Your task to perform on an android device: change alarm snooze length Image 0: 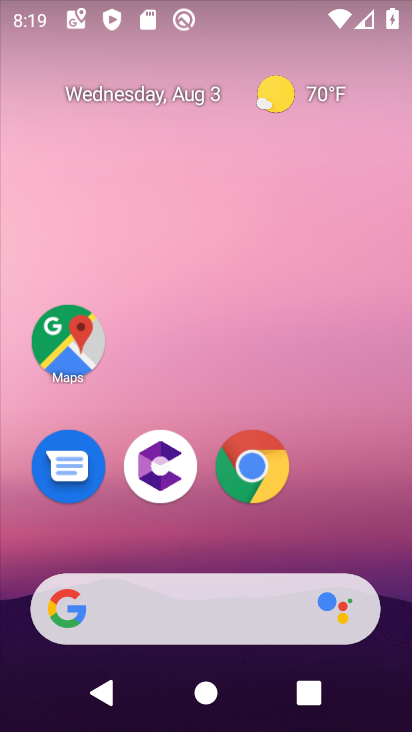
Step 0: drag from (370, 480) to (362, 76)
Your task to perform on an android device: change alarm snooze length Image 1: 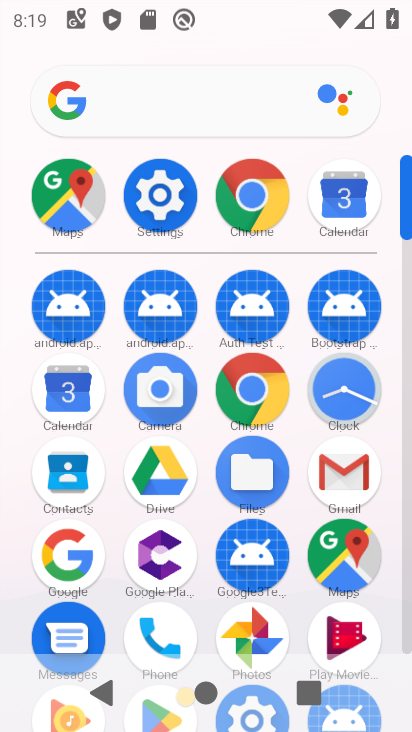
Step 1: click (335, 384)
Your task to perform on an android device: change alarm snooze length Image 2: 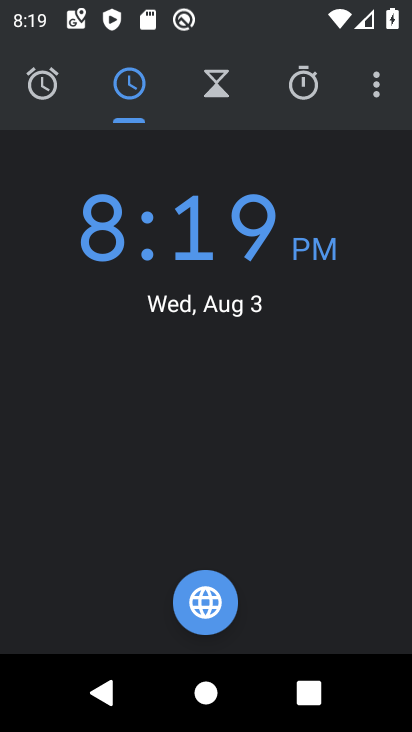
Step 2: click (372, 84)
Your task to perform on an android device: change alarm snooze length Image 3: 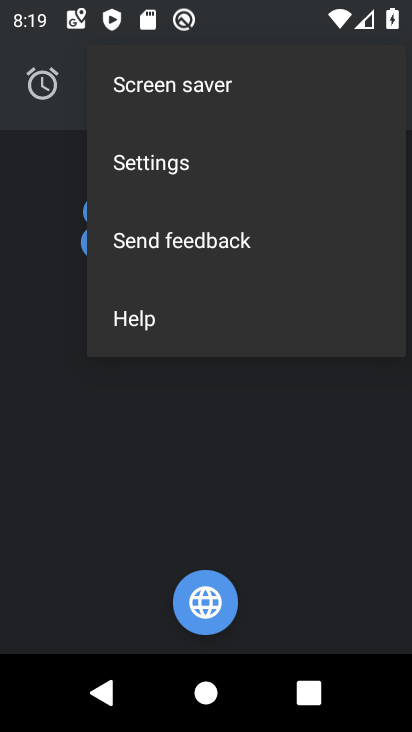
Step 3: click (155, 175)
Your task to perform on an android device: change alarm snooze length Image 4: 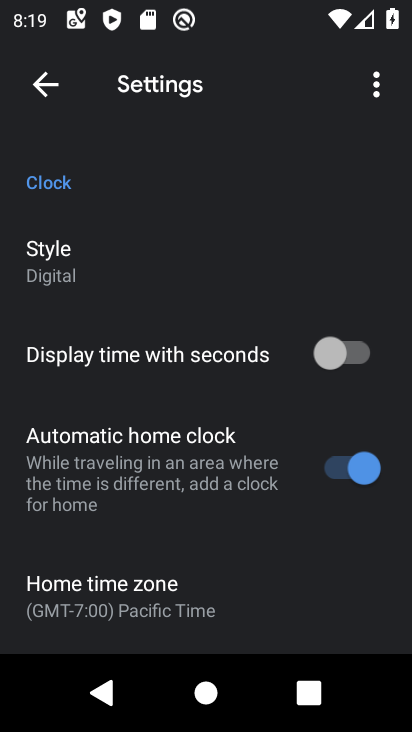
Step 4: drag from (227, 450) to (202, 169)
Your task to perform on an android device: change alarm snooze length Image 5: 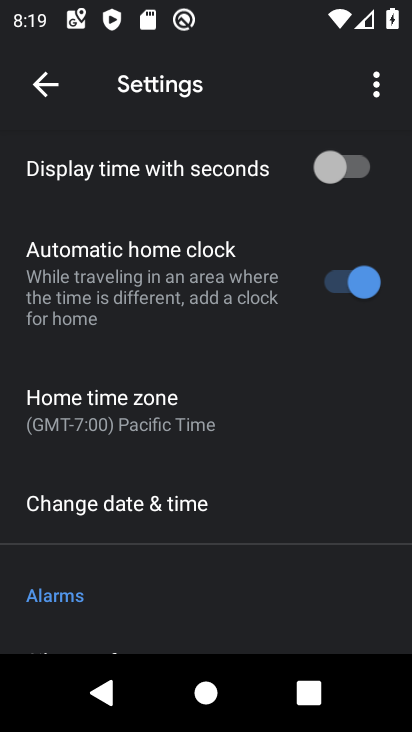
Step 5: drag from (239, 487) to (219, 346)
Your task to perform on an android device: change alarm snooze length Image 6: 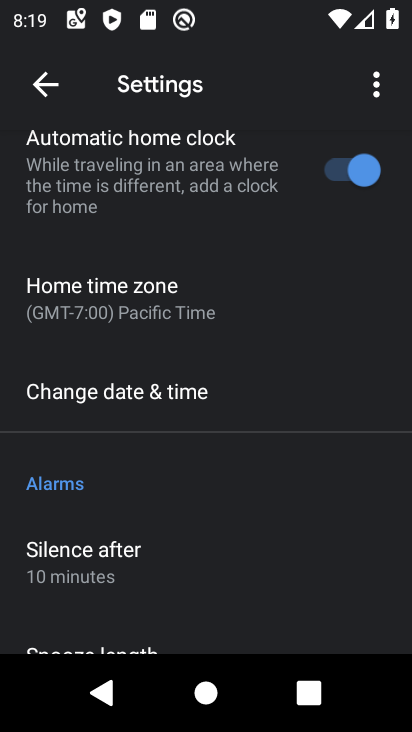
Step 6: drag from (231, 571) to (246, 398)
Your task to perform on an android device: change alarm snooze length Image 7: 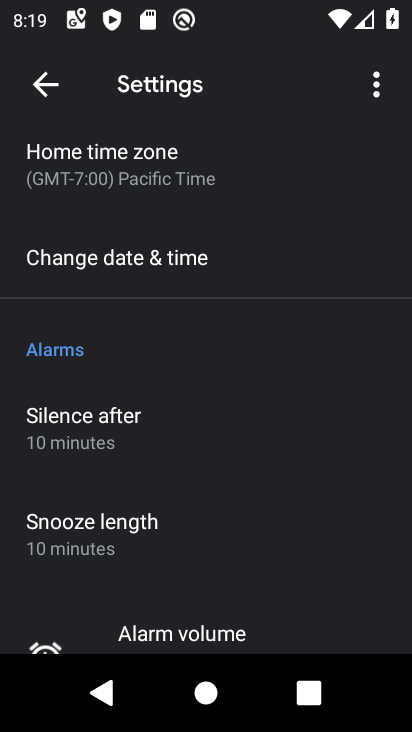
Step 7: click (88, 523)
Your task to perform on an android device: change alarm snooze length Image 8: 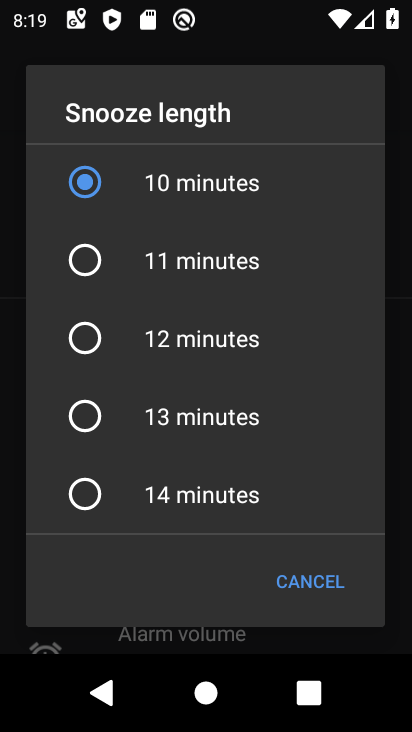
Step 8: click (219, 266)
Your task to perform on an android device: change alarm snooze length Image 9: 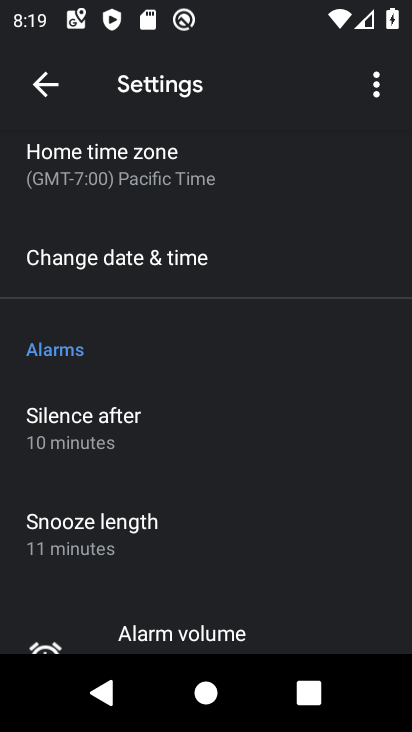
Step 9: task complete